Your task to perform on an android device: turn off notifications settings in the gmail app Image 0: 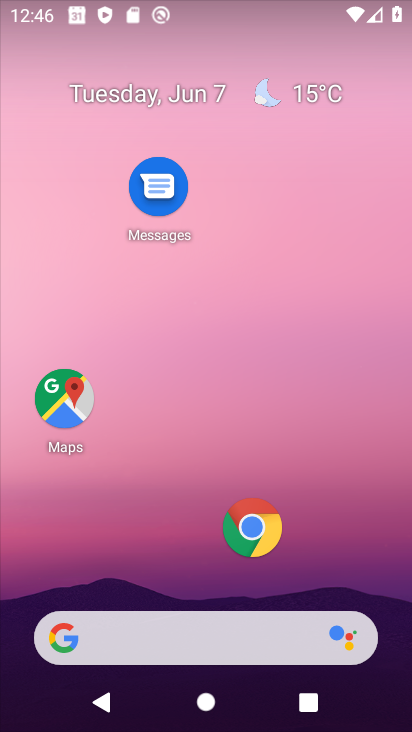
Step 0: drag from (236, 604) to (273, 321)
Your task to perform on an android device: turn off notifications settings in the gmail app Image 1: 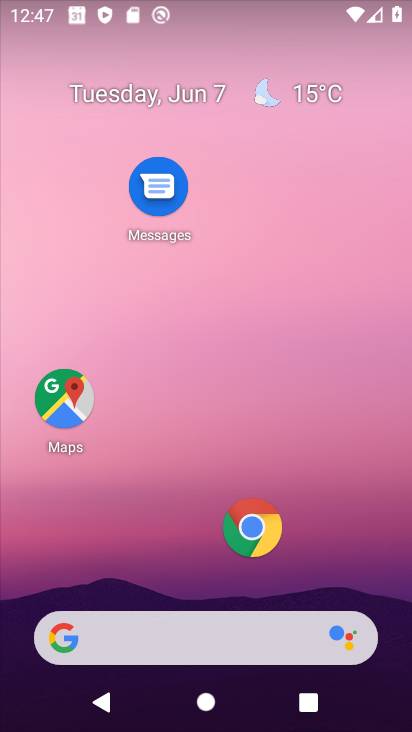
Step 1: drag from (268, 611) to (263, 293)
Your task to perform on an android device: turn off notifications settings in the gmail app Image 2: 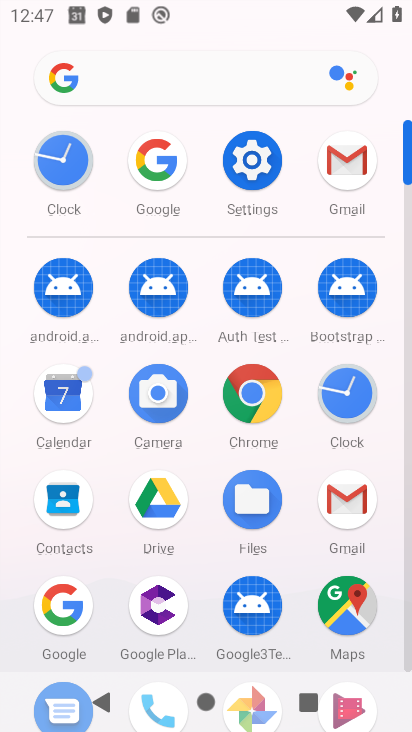
Step 2: click (351, 512)
Your task to perform on an android device: turn off notifications settings in the gmail app Image 3: 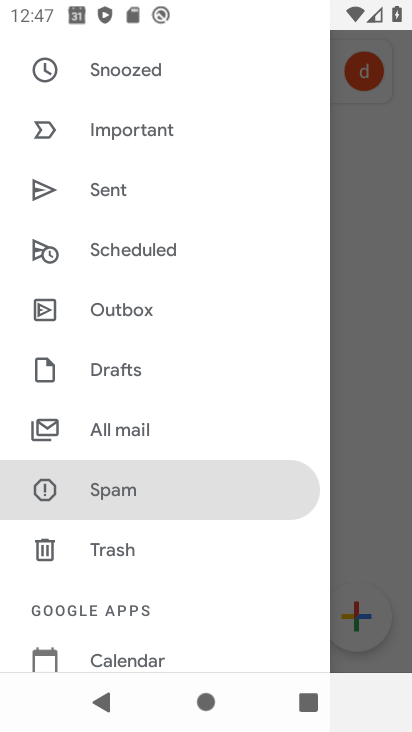
Step 3: drag from (146, 609) to (185, 271)
Your task to perform on an android device: turn off notifications settings in the gmail app Image 4: 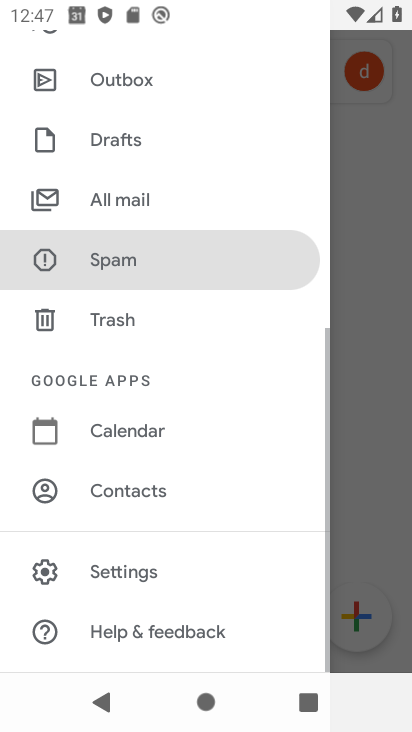
Step 4: click (136, 589)
Your task to perform on an android device: turn off notifications settings in the gmail app Image 5: 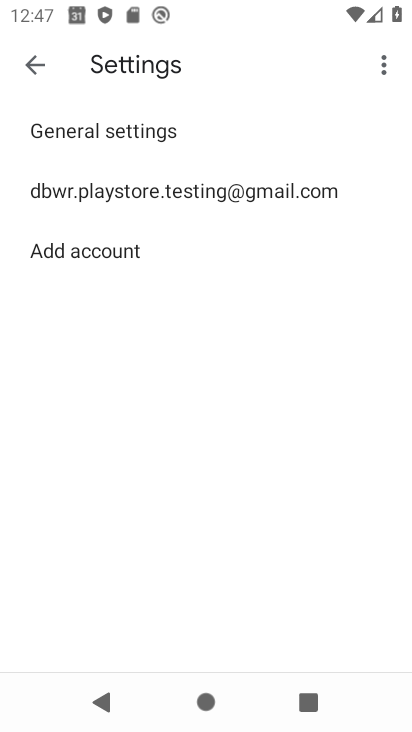
Step 5: click (119, 134)
Your task to perform on an android device: turn off notifications settings in the gmail app Image 6: 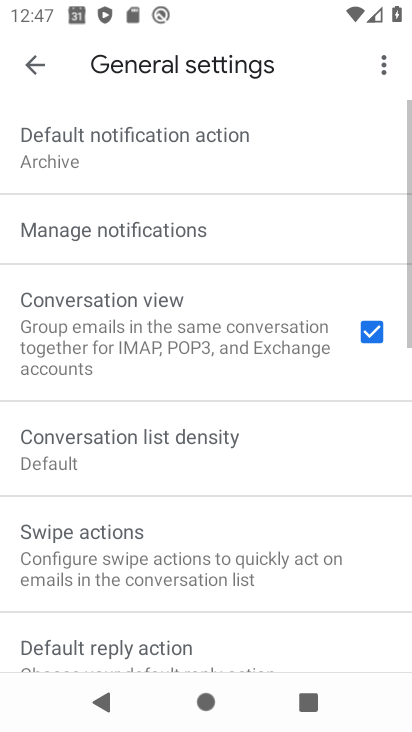
Step 6: click (150, 236)
Your task to perform on an android device: turn off notifications settings in the gmail app Image 7: 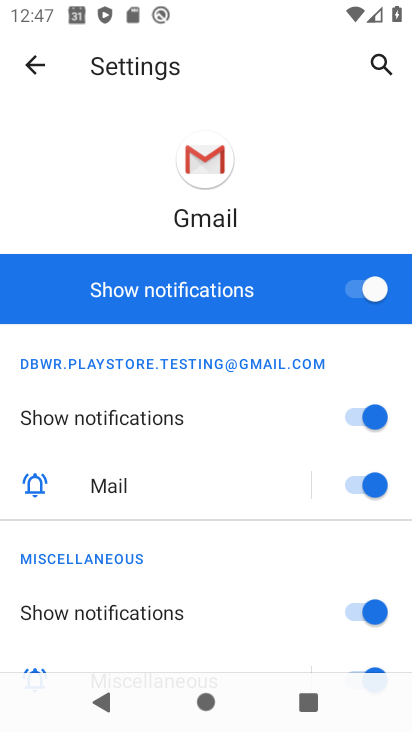
Step 7: click (364, 286)
Your task to perform on an android device: turn off notifications settings in the gmail app Image 8: 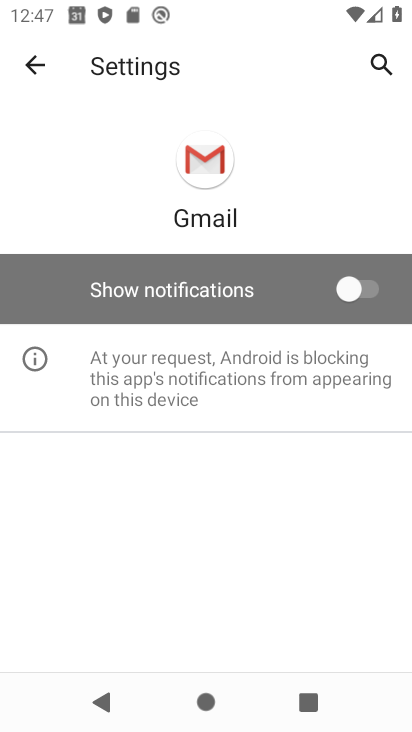
Step 8: task complete